Your task to perform on an android device: Open Maps and search for coffee Image 0: 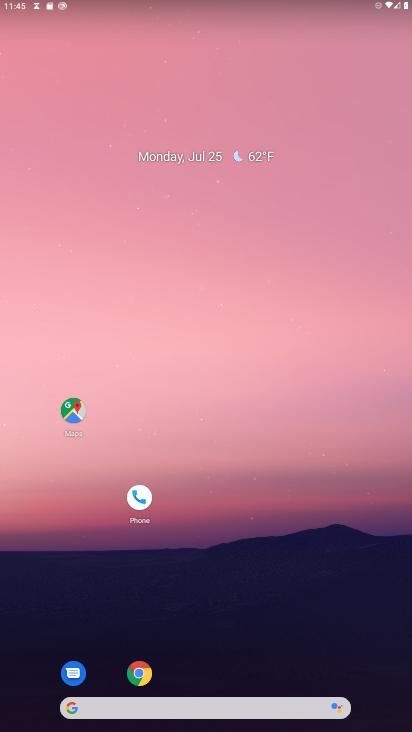
Step 0: press home button
Your task to perform on an android device: Open Maps and search for coffee Image 1: 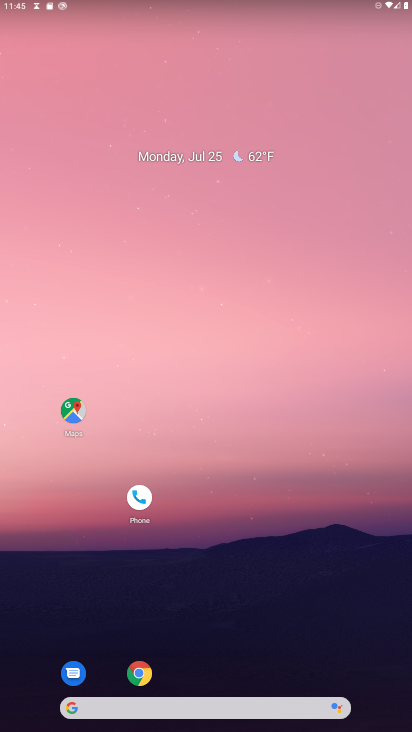
Step 1: click (72, 410)
Your task to perform on an android device: Open Maps and search for coffee Image 2: 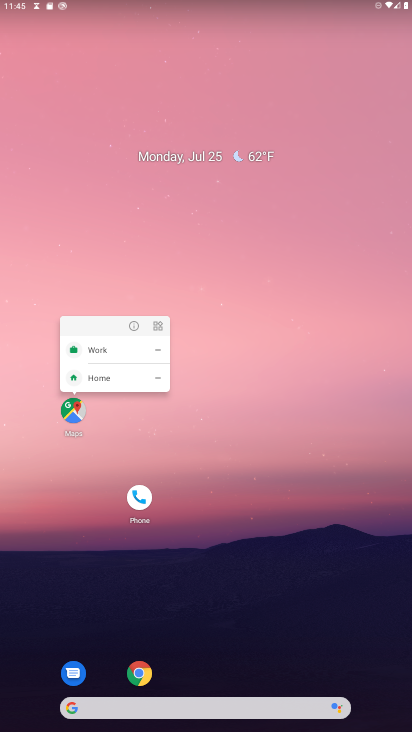
Step 2: click (79, 410)
Your task to perform on an android device: Open Maps and search for coffee Image 3: 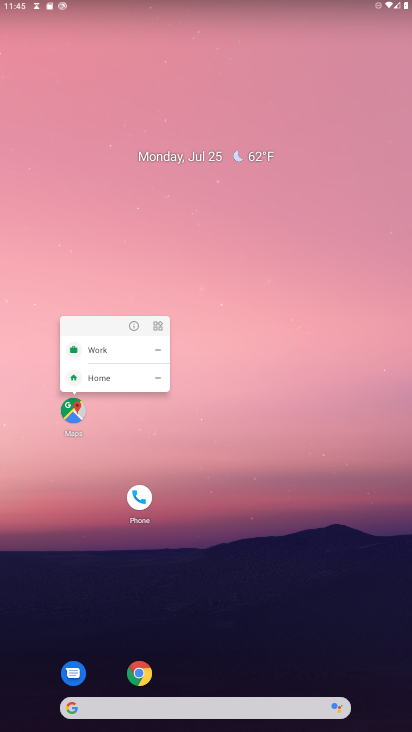
Step 3: click (79, 410)
Your task to perform on an android device: Open Maps and search for coffee Image 4: 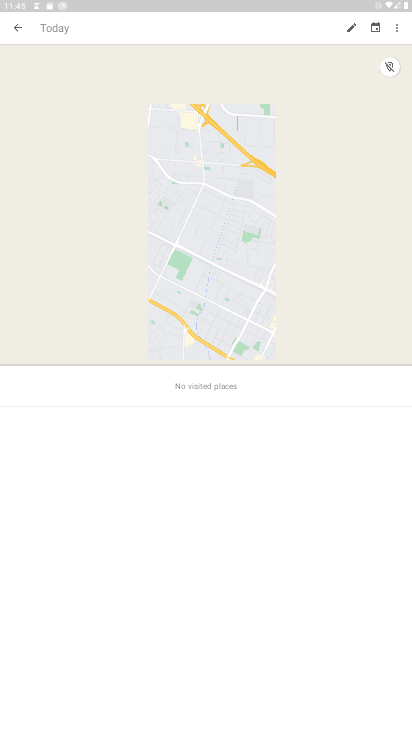
Step 4: click (86, 24)
Your task to perform on an android device: Open Maps and search for coffee Image 5: 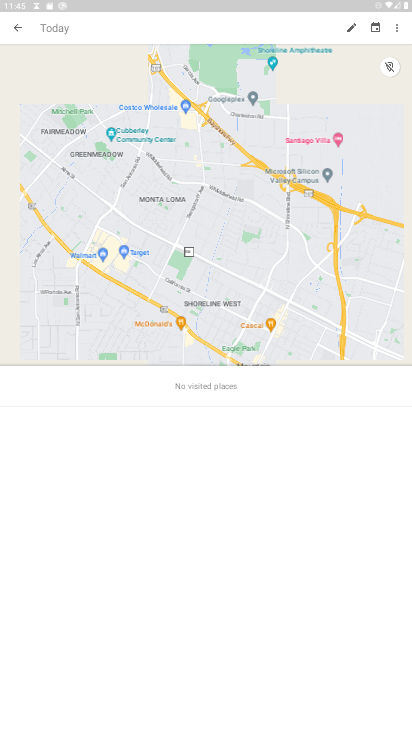
Step 5: type "coffee"
Your task to perform on an android device: Open Maps and search for coffee Image 6: 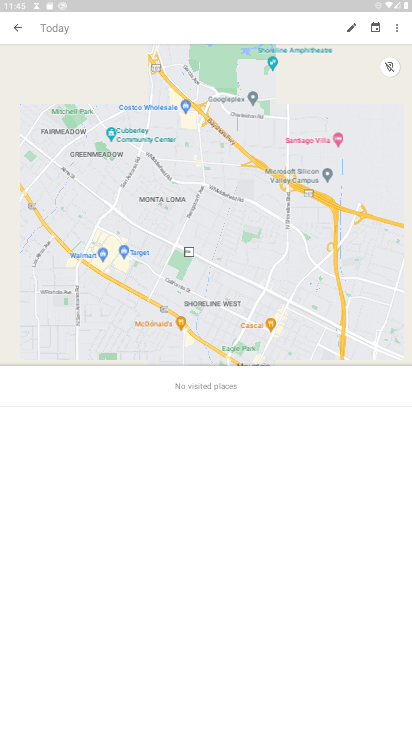
Step 6: click (74, 26)
Your task to perform on an android device: Open Maps and search for coffee Image 7: 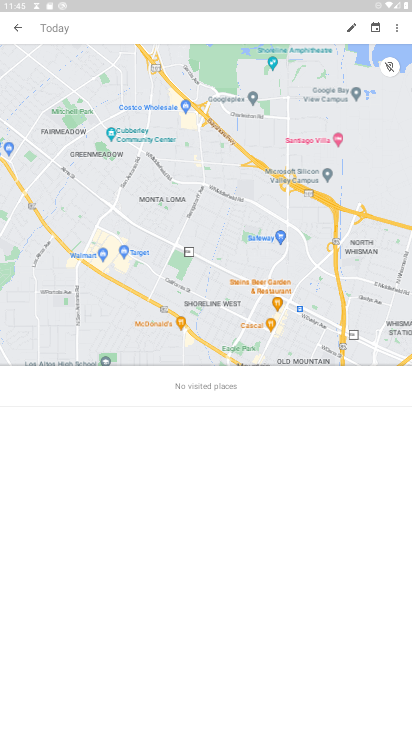
Step 7: click (72, 24)
Your task to perform on an android device: Open Maps and search for coffee Image 8: 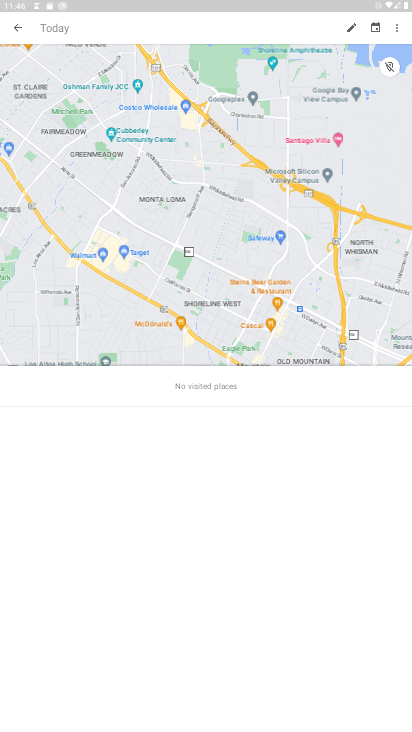
Step 8: click (72, 26)
Your task to perform on an android device: Open Maps and search for coffee Image 9: 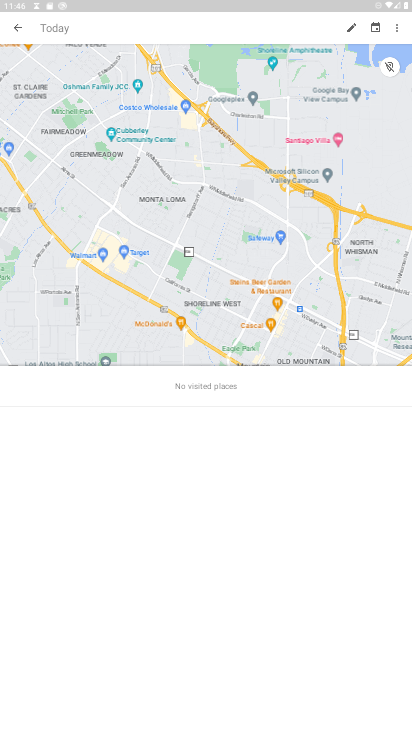
Step 9: click (72, 24)
Your task to perform on an android device: Open Maps and search for coffee Image 10: 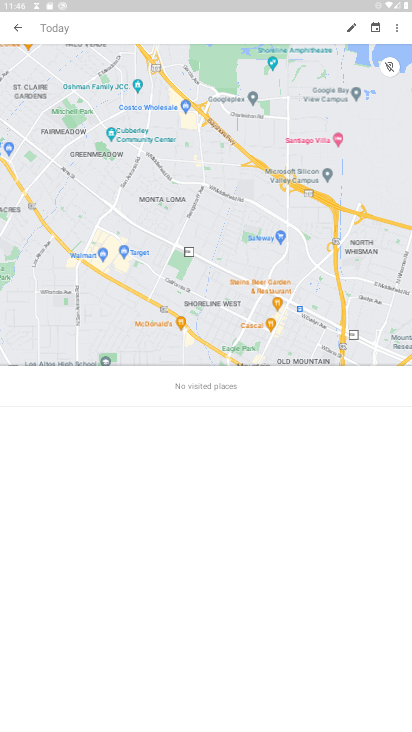
Step 10: click (10, 26)
Your task to perform on an android device: Open Maps and search for coffee Image 11: 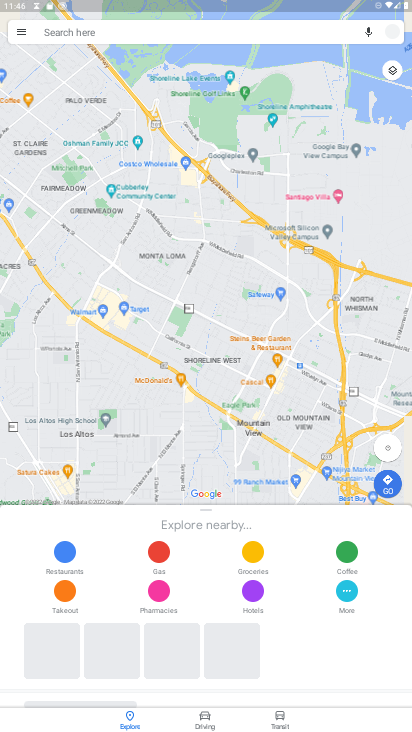
Step 11: click (90, 30)
Your task to perform on an android device: Open Maps and search for coffee Image 12: 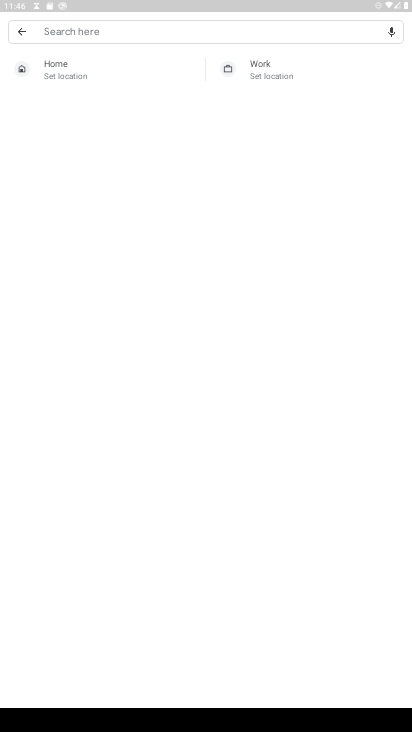
Step 12: type "coffee"
Your task to perform on an android device: Open Maps and search for coffee Image 13: 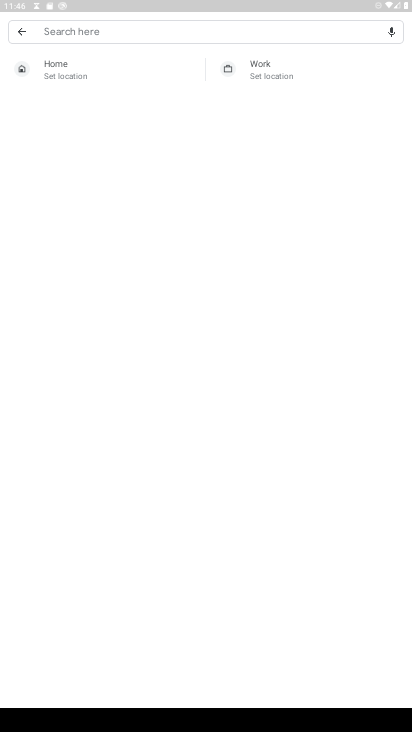
Step 13: click (83, 25)
Your task to perform on an android device: Open Maps and search for coffee Image 14: 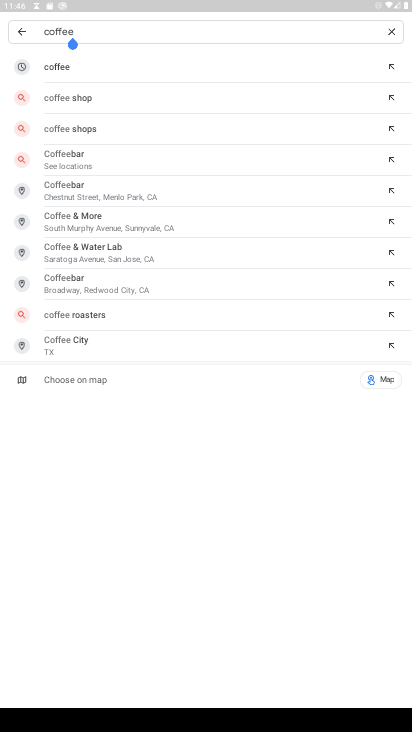
Step 14: click (59, 71)
Your task to perform on an android device: Open Maps and search for coffee Image 15: 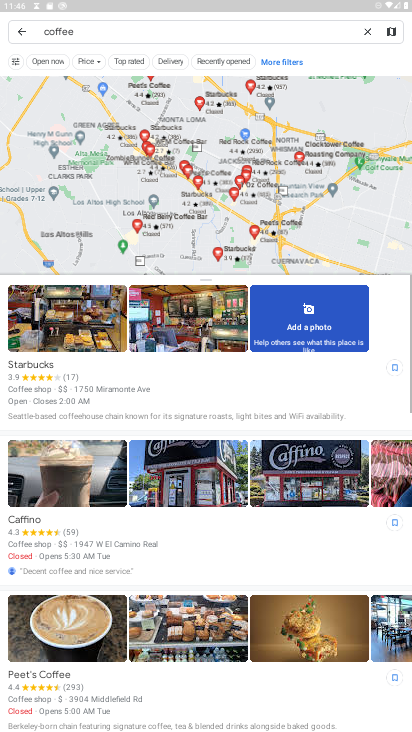
Step 15: task complete